Your task to perform on an android device: set default search engine in the chrome app Image 0: 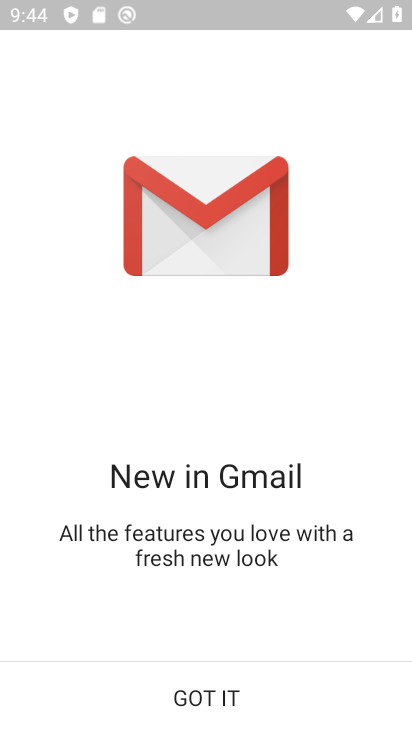
Step 0: press home button
Your task to perform on an android device: set default search engine in the chrome app Image 1: 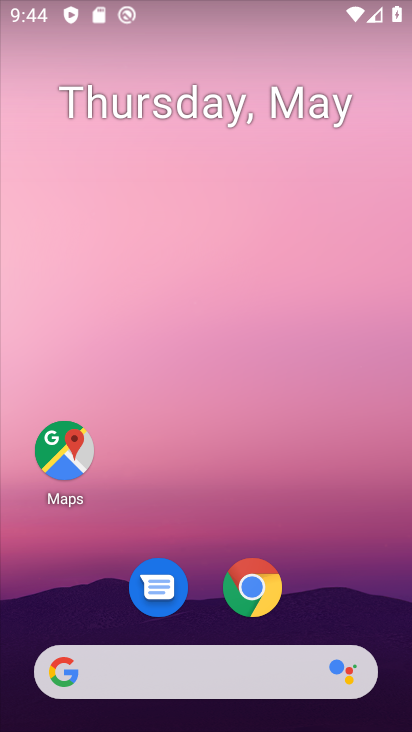
Step 1: click (257, 564)
Your task to perform on an android device: set default search engine in the chrome app Image 2: 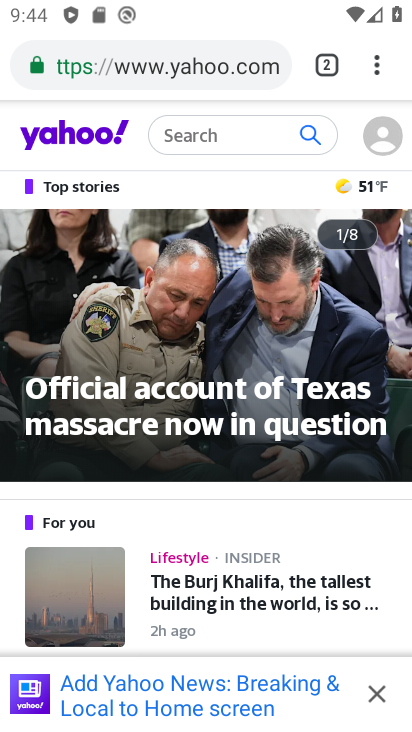
Step 2: click (382, 61)
Your task to perform on an android device: set default search engine in the chrome app Image 3: 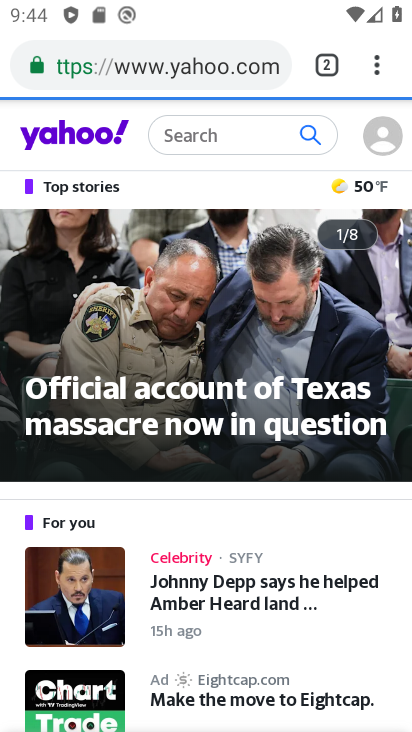
Step 3: click (377, 72)
Your task to perform on an android device: set default search engine in the chrome app Image 4: 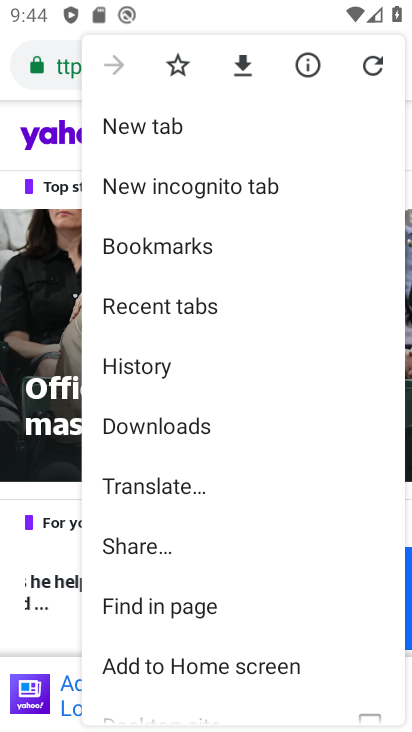
Step 4: drag from (187, 700) to (193, 238)
Your task to perform on an android device: set default search engine in the chrome app Image 5: 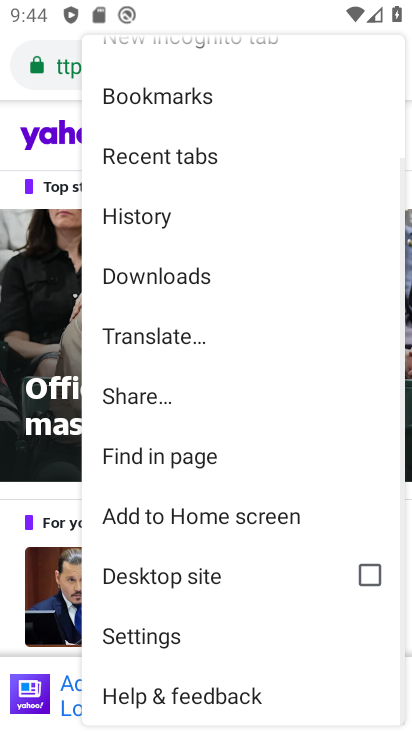
Step 5: click (155, 624)
Your task to perform on an android device: set default search engine in the chrome app Image 6: 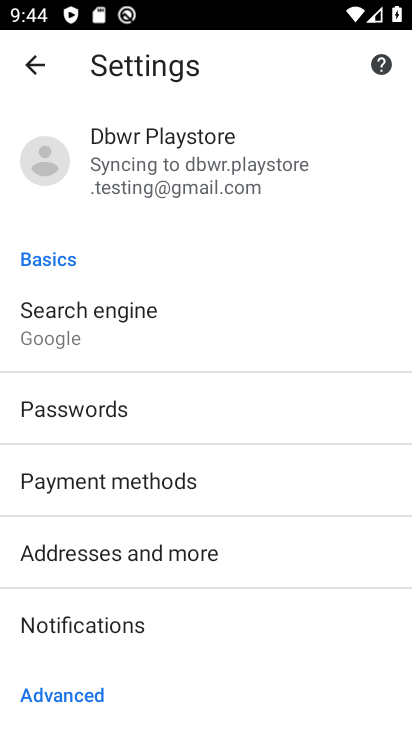
Step 6: click (68, 308)
Your task to perform on an android device: set default search engine in the chrome app Image 7: 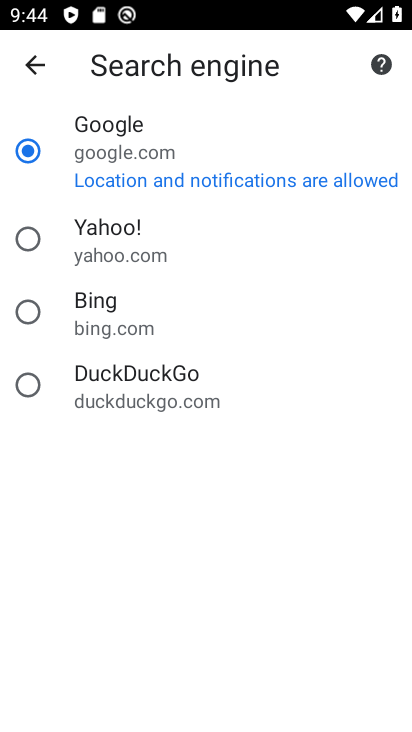
Step 7: task complete